Your task to perform on an android device: What is the recent news? Image 0: 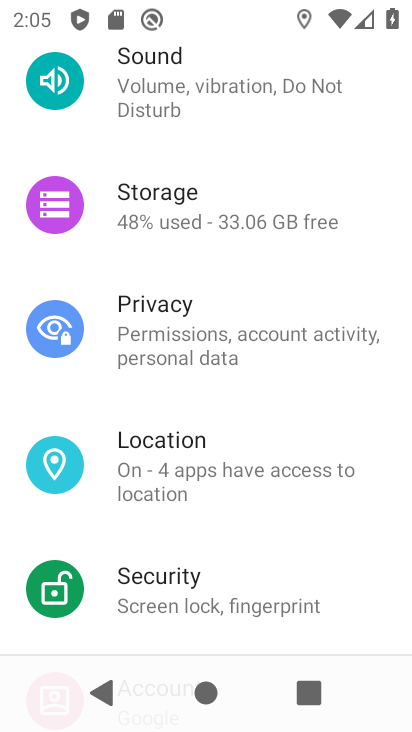
Step 0: press home button
Your task to perform on an android device: What is the recent news? Image 1: 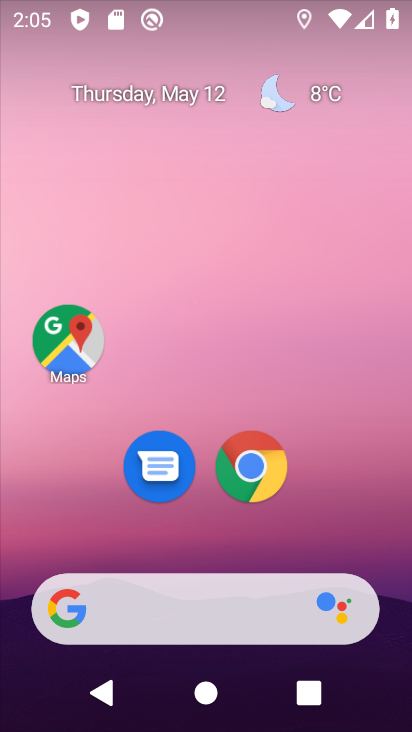
Step 1: drag from (342, 512) to (243, 124)
Your task to perform on an android device: What is the recent news? Image 2: 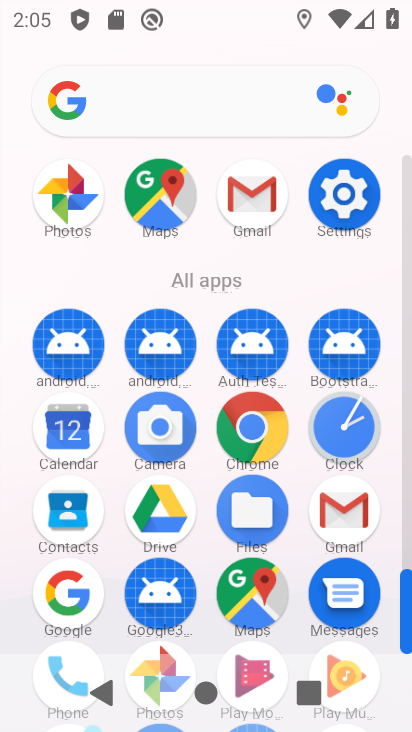
Step 2: click (269, 433)
Your task to perform on an android device: What is the recent news? Image 3: 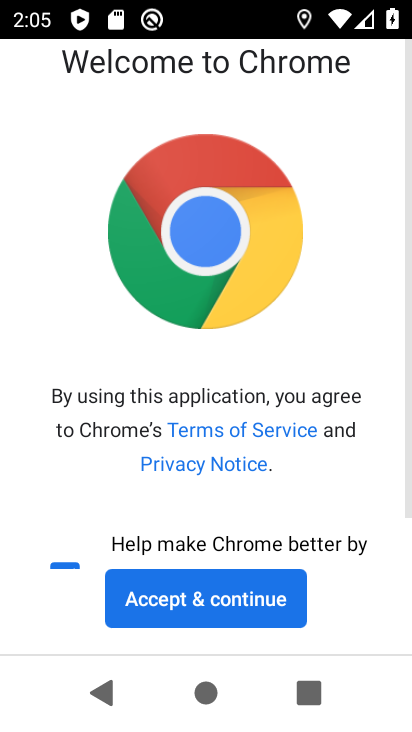
Step 3: click (233, 593)
Your task to perform on an android device: What is the recent news? Image 4: 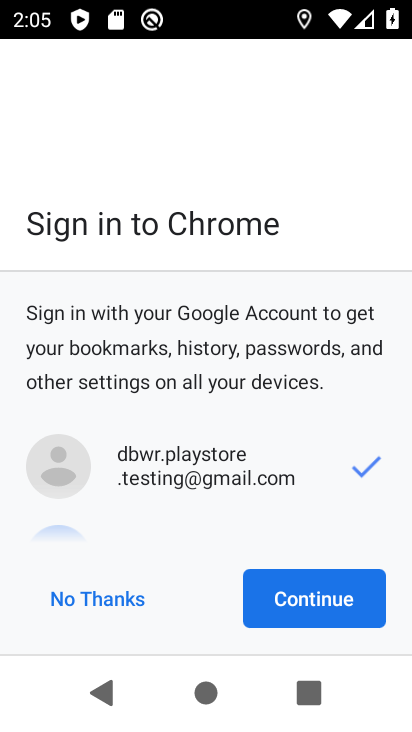
Step 4: click (351, 592)
Your task to perform on an android device: What is the recent news? Image 5: 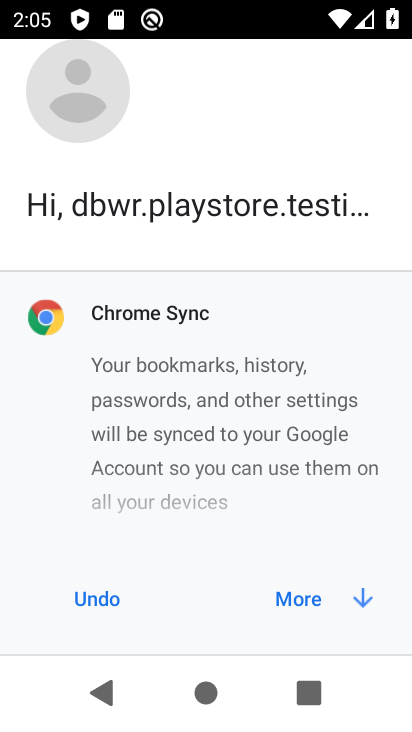
Step 5: click (302, 599)
Your task to perform on an android device: What is the recent news? Image 6: 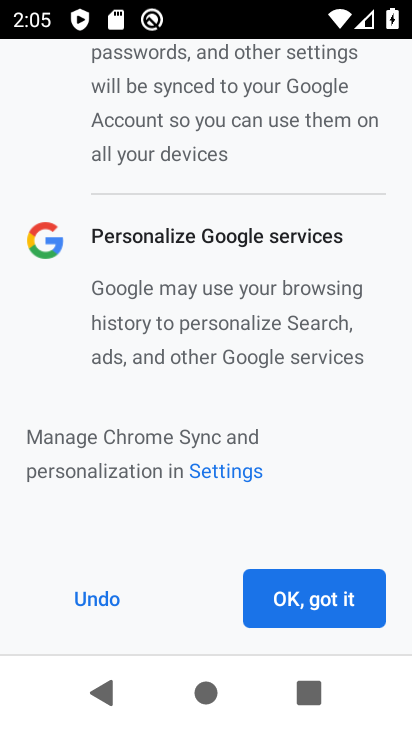
Step 6: click (302, 599)
Your task to perform on an android device: What is the recent news? Image 7: 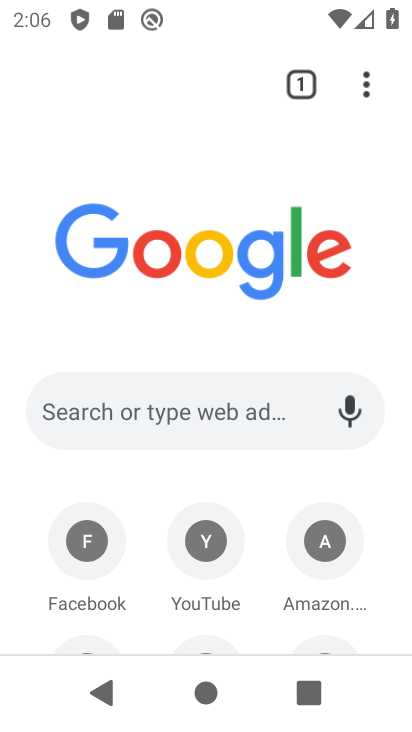
Step 7: click (158, 419)
Your task to perform on an android device: What is the recent news? Image 8: 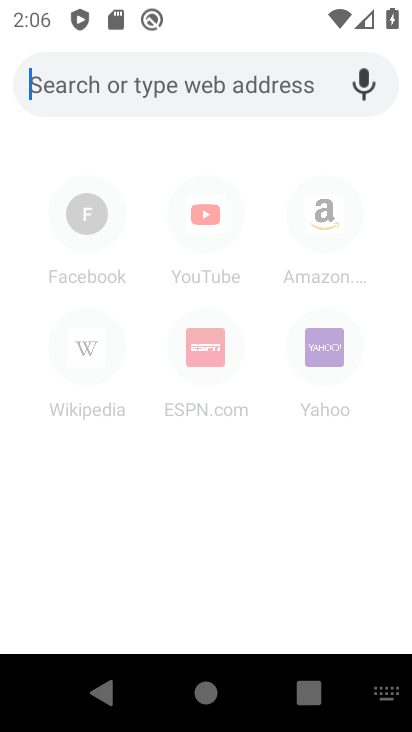
Step 8: type "what is the recent news?"
Your task to perform on an android device: What is the recent news? Image 9: 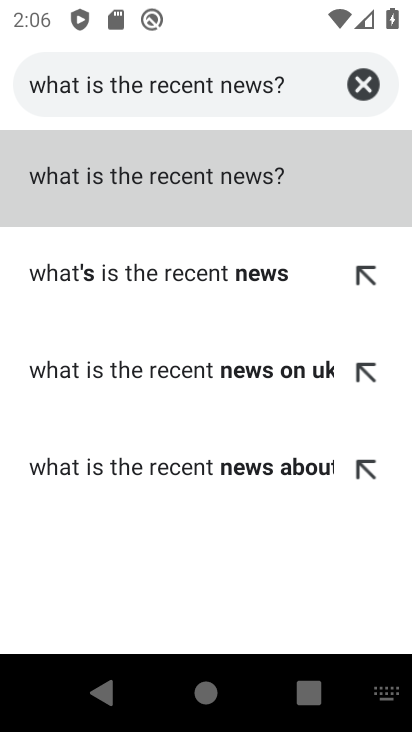
Step 9: click (235, 177)
Your task to perform on an android device: What is the recent news? Image 10: 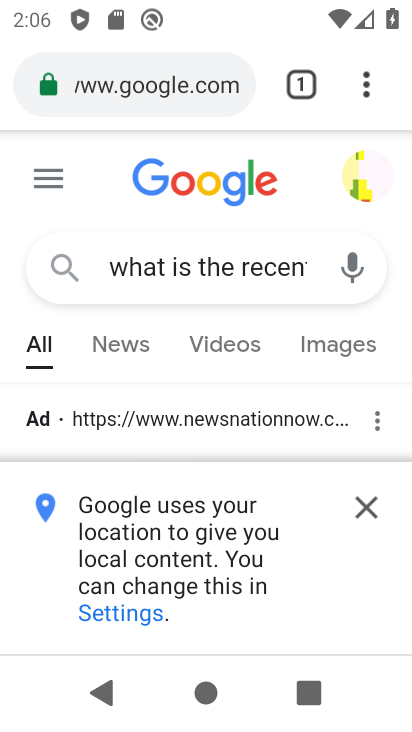
Step 10: drag from (240, 436) to (192, 164)
Your task to perform on an android device: What is the recent news? Image 11: 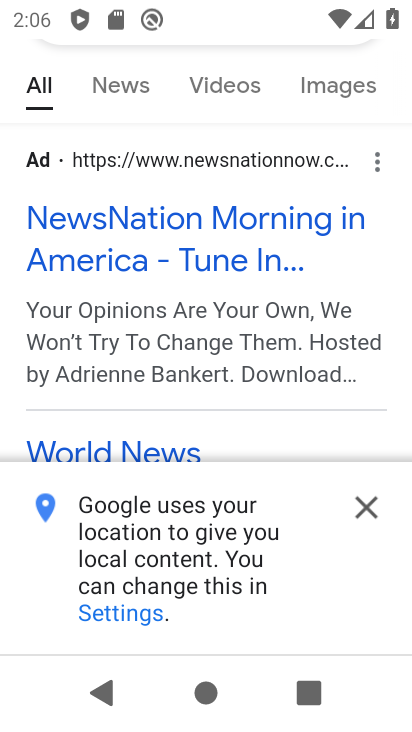
Step 11: click (363, 507)
Your task to perform on an android device: What is the recent news? Image 12: 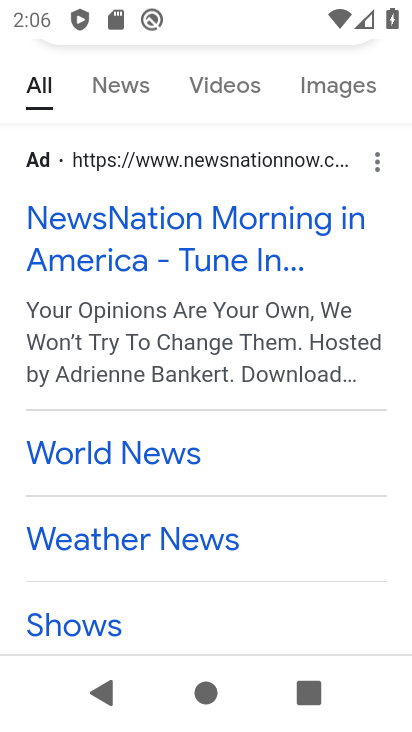
Step 12: click (130, 84)
Your task to perform on an android device: What is the recent news? Image 13: 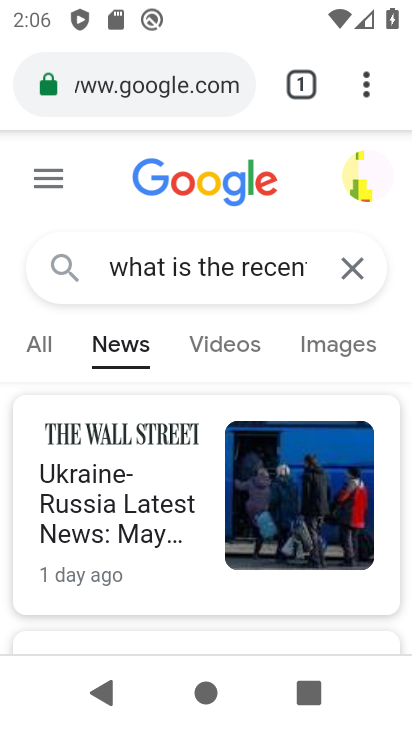
Step 13: task complete